Your task to perform on an android device: star an email in the gmail app Image 0: 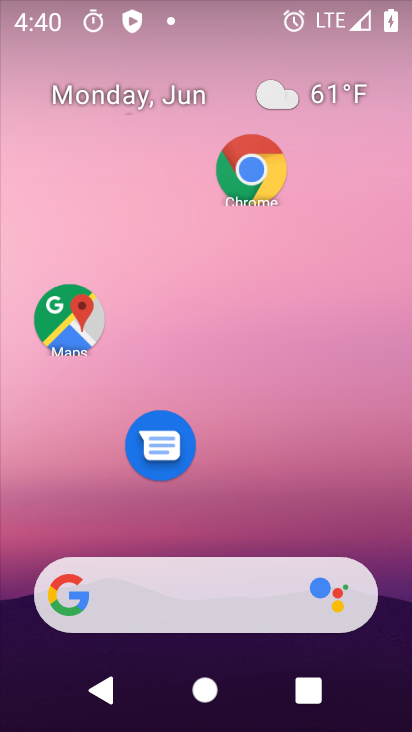
Step 0: press home button
Your task to perform on an android device: star an email in the gmail app Image 1: 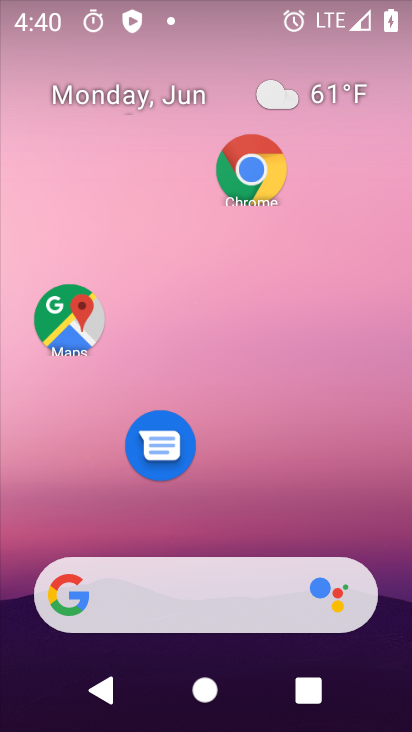
Step 1: drag from (237, 524) to (219, 91)
Your task to perform on an android device: star an email in the gmail app Image 2: 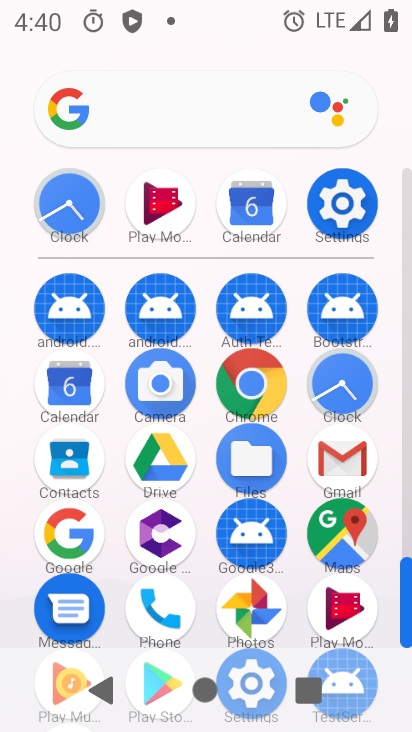
Step 2: click (347, 461)
Your task to perform on an android device: star an email in the gmail app Image 3: 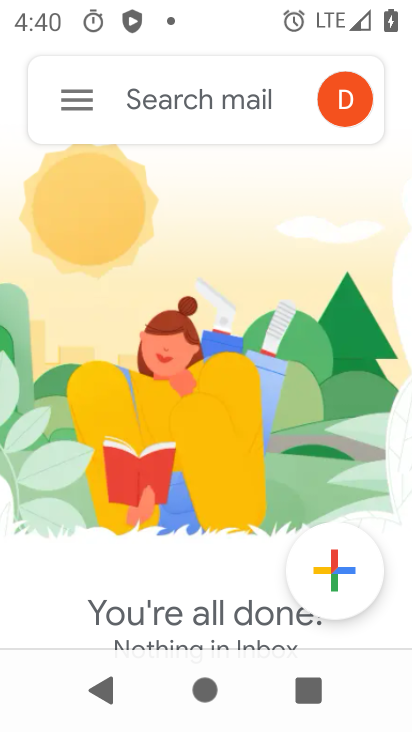
Step 3: click (78, 101)
Your task to perform on an android device: star an email in the gmail app Image 4: 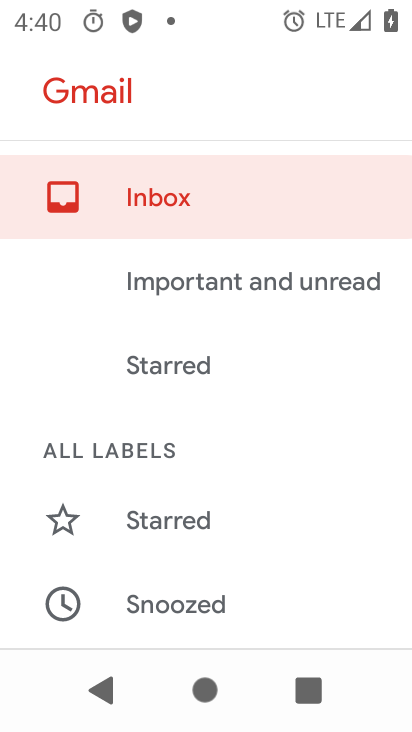
Step 4: drag from (210, 562) to (203, 249)
Your task to perform on an android device: star an email in the gmail app Image 5: 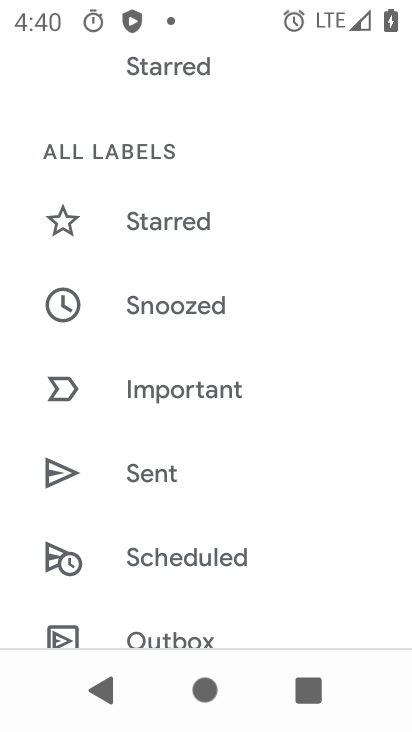
Step 5: drag from (163, 421) to (182, 234)
Your task to perform on an android device: star an email in the gmail app Image 6: 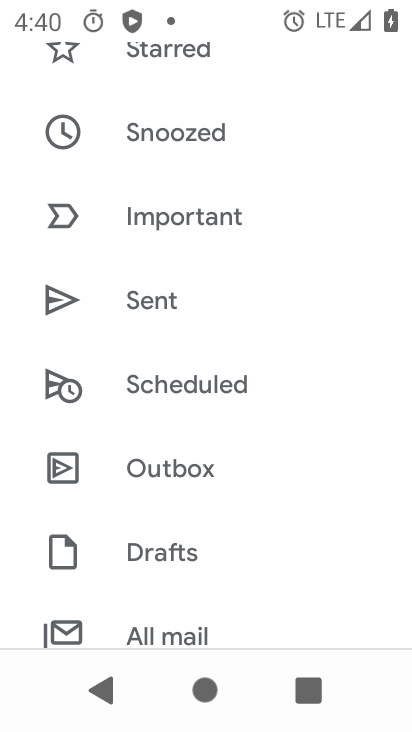
Step 6: drag from (171, 371) to (182, 262)
Your task to perform on an android device: star an email in the gmail app Image 7: 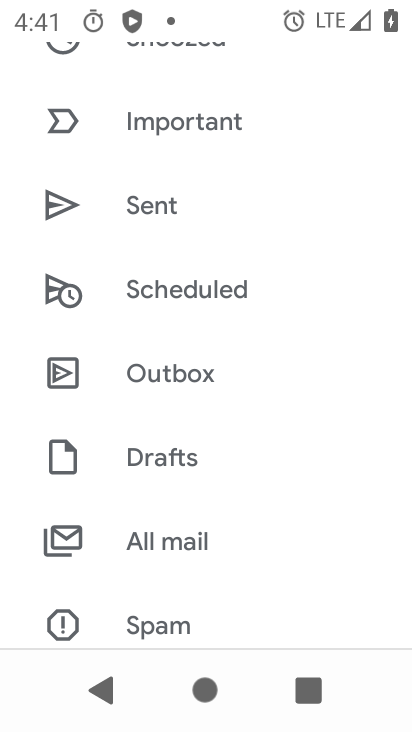
Step 7: click (176, 529)
Your task to perform on an android device: star an email in the gmail app Image 8: 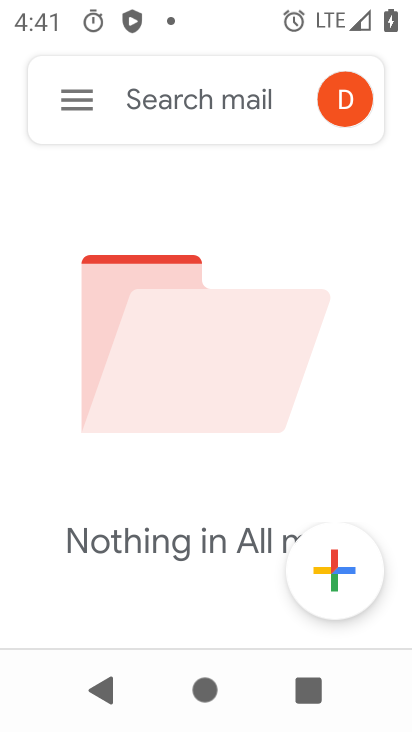
Step 8: task complete